Your task to perform on an android device: Open the calendar app, open the side menu, and click the "Day" option Image 0: 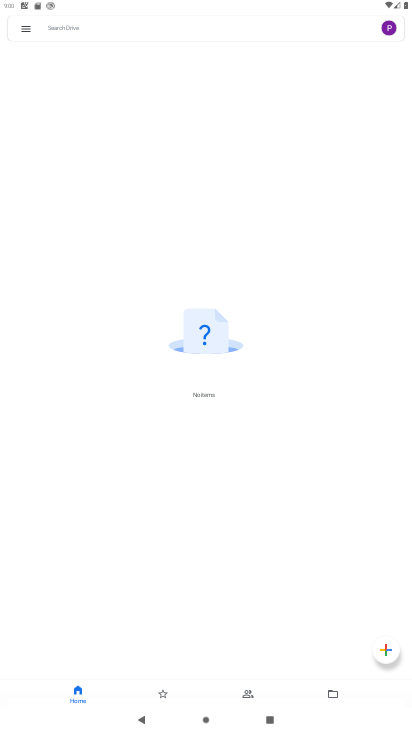
Step 0: press home button
Your task to perform on an android device: Open the calendar app, open the side menu, and click the "Day" option Image 1: 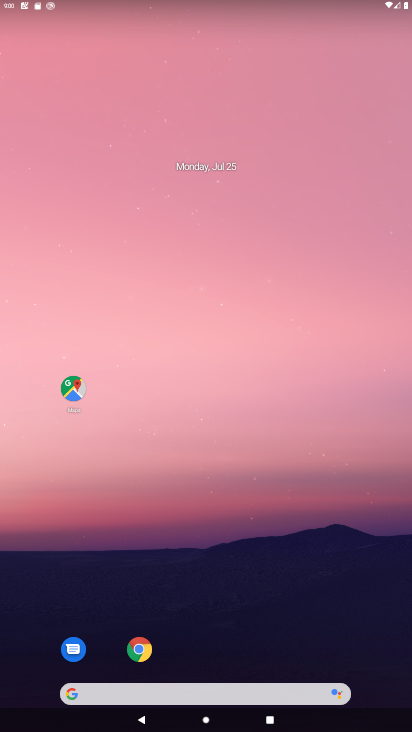
Step 1: drag from (184, 654) to (395, 285)
Your task to perform on an android device: Open the calendar app, open the side menu, and click the "Day" option Image 2: 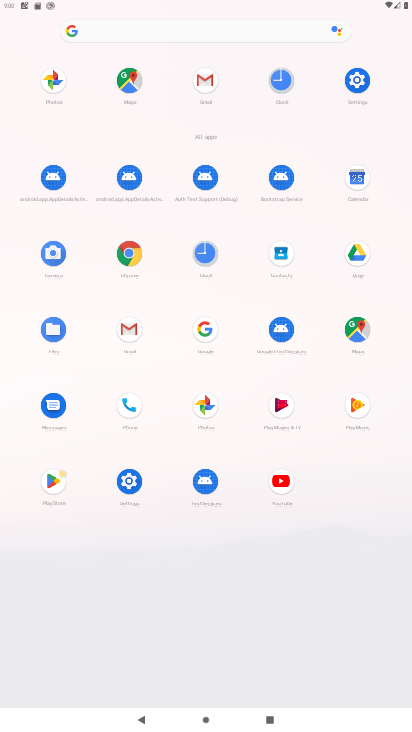
Step 2: click (355, 187)
Your task to perform on an android device: Open the calendar app, open the side menu, and click the "Day" option Image 3: 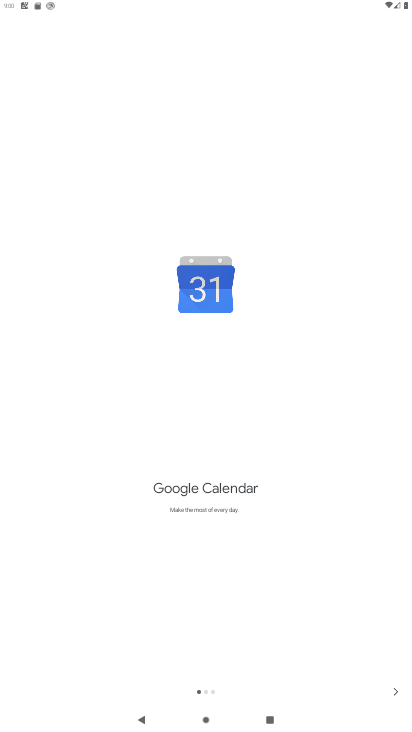
Step 3: click (393, 689)
Your task to perform on an android device: Open the calendar app, open the side menu, and click the "Day" option Image 4: 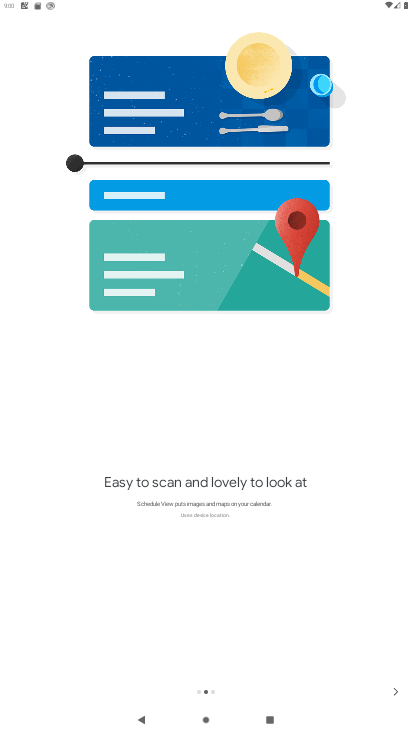
Step 4: click (393, 689)
Your task to perform on an android device: Open the calendar app, open the side menu, and click the "Day" option Image 5: 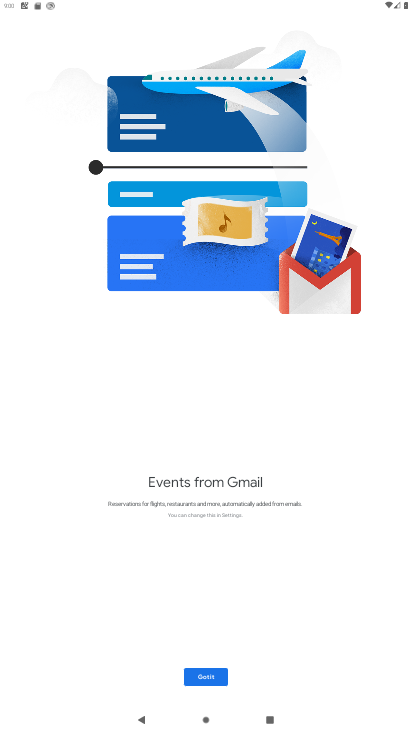
Step 5: click (212, 672)
Your task to perform on an android device: Open the calendar app, open the side menu, and click the "Day" option Image 6: 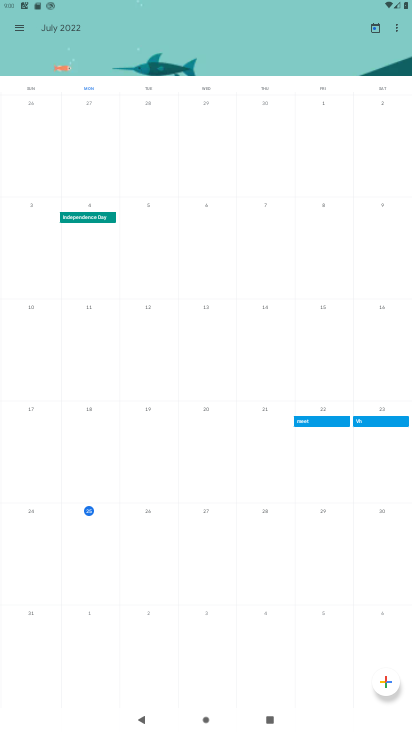
Step 6: click (16, 25)
Your task to perform on an android device: Open the calendar app, open the side menu, and click the "Day" option Image 7: 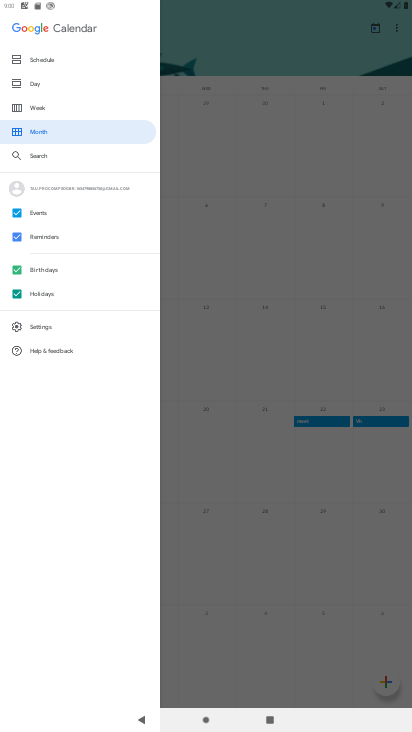
Step 7: click (23, 77)
Your task to perform on an android device: Open the calendar app, open the side menu, and click the "Day" option Image 8: 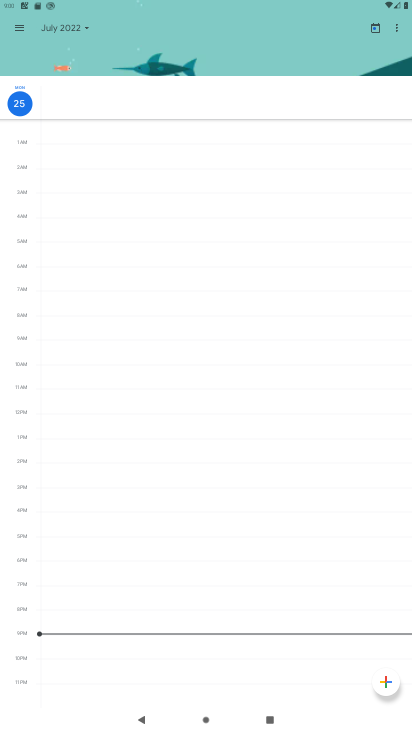
Step 8: task complete